Your task to perform on an android device: Go to notification settings Image 0: 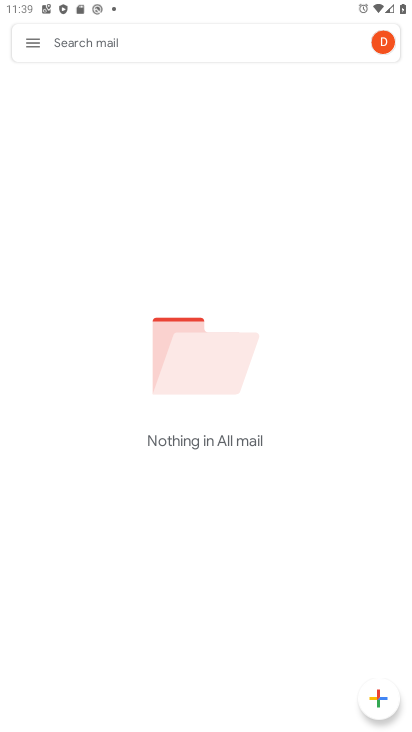
Step 0: press home button
Your task to perform on an android device: Go to notification settings Image 1: 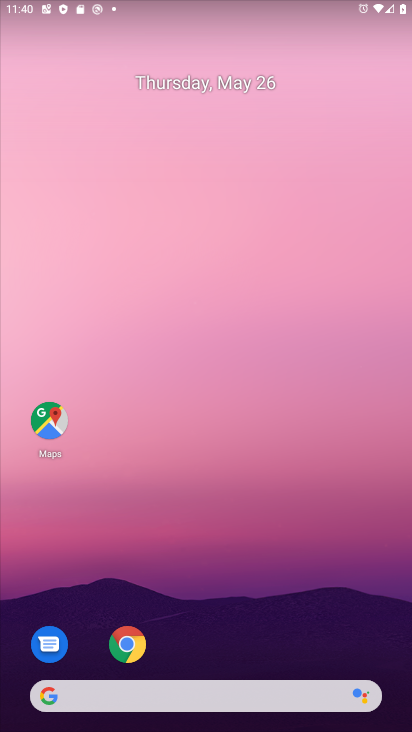
Step 1: drag from (207, 645) to (214, 152)
Your task to perform on an android device: Go to notification settings Image 2: 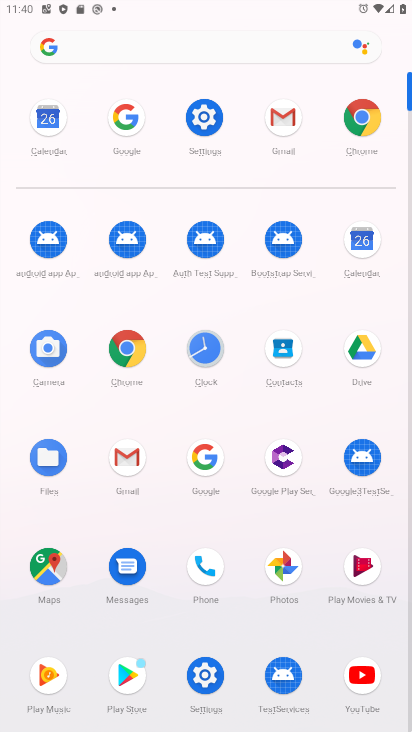
Step 2: click (213, 121)
Your task to perform on an android device: Go to notification settings Image 3: 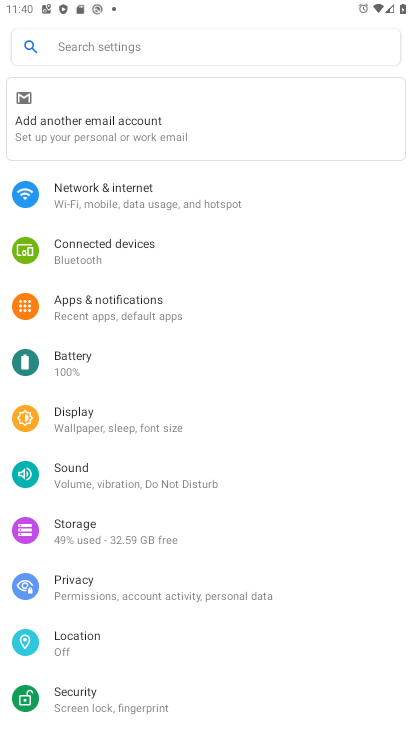
Step 3: click (156, 301)
Your task to perform on an android device: Go to notification settings Image 4: 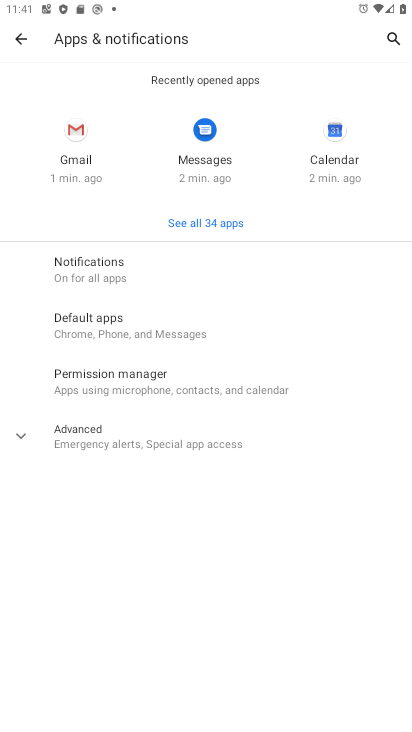
Step 4: click (106, 275)
Your task to perform on an android device: Go to notification settings Image 5: 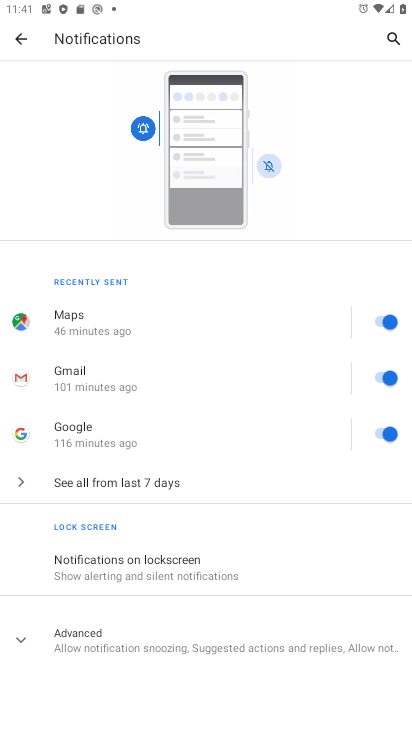
Step 5: task complete